Your task to perform on an android device: What's the weather? Image 0: 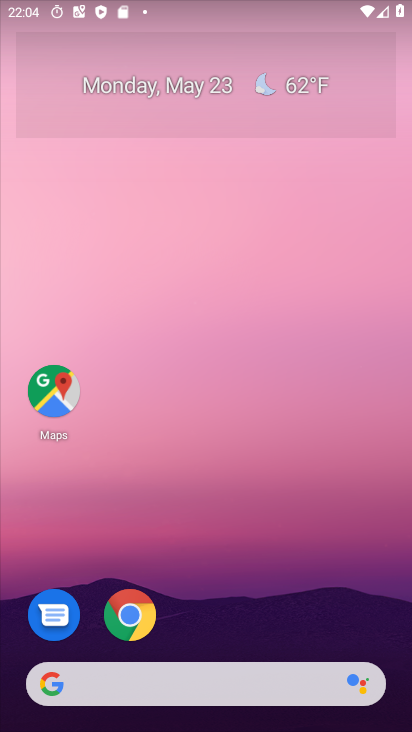
Step 0: drag from (219, 599) to (304, 110)
Your task to perform on an android device: What's the weather? Image 1: 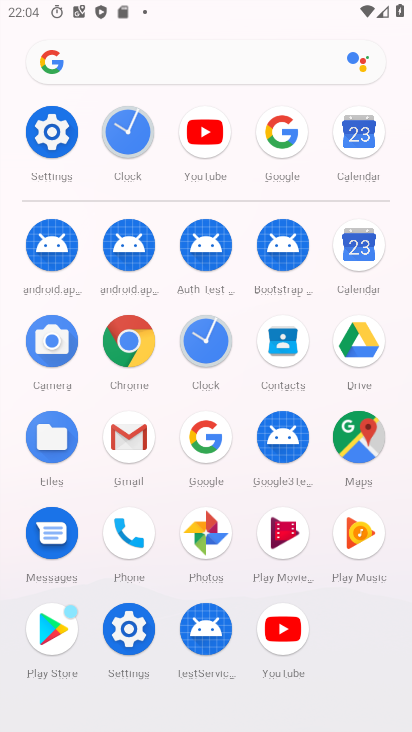
Step 1: click (276, 138)
Your task to perform on an android device: What's the weather? Image 2: 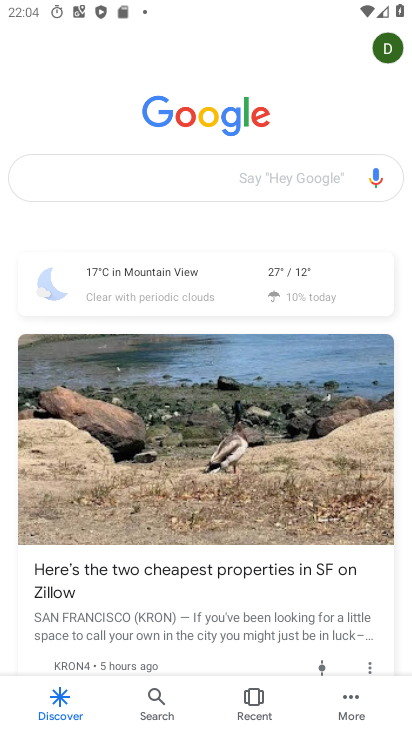
Step 2: click (117, 184)
Your task to perform on an android device: What's the weather? Image 3: 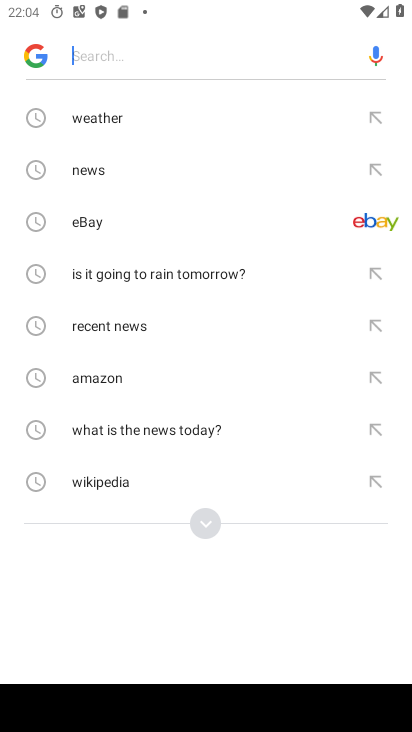
Step 3: click (122, 121)
Your task to perform on an android device: What's the weather? Image 4: 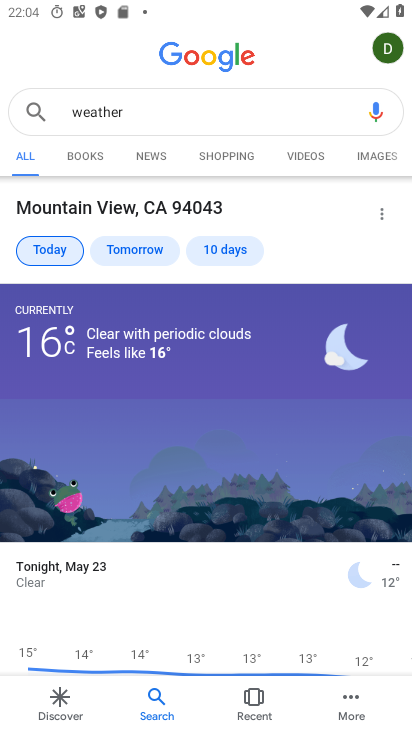
Step 4: task complete